Your task to perform on an android device: Go to Wikipedia Image 0: 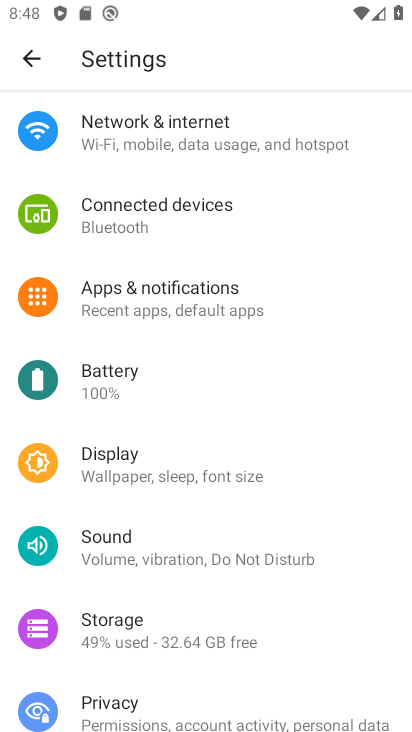
Step 0: press home button
Your task to perform on an android device: Go to Wikipedia Image 1: 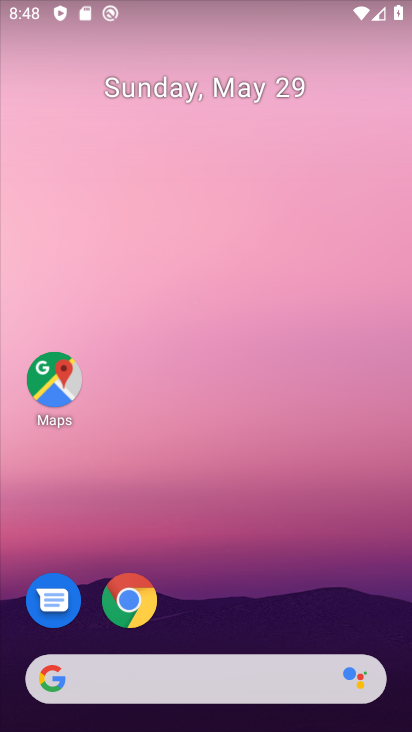
Step 1: click (127, 624)
Your task to perform on an android device: Go to Wikipedia Image 2: 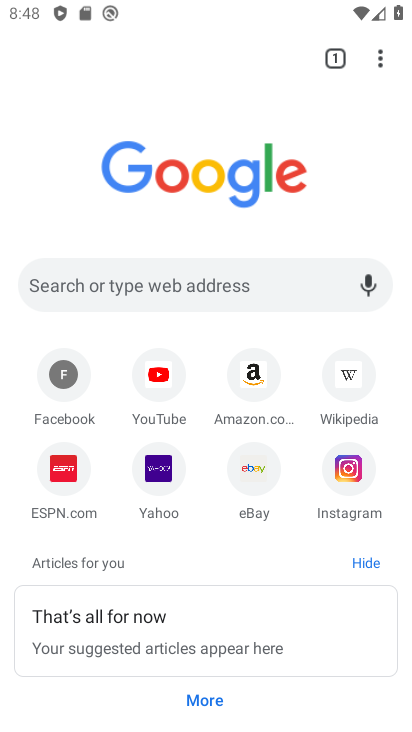
Step 2: click (356, 379)
Your task to perform on an android device: Go to Wikipedia Image 3: 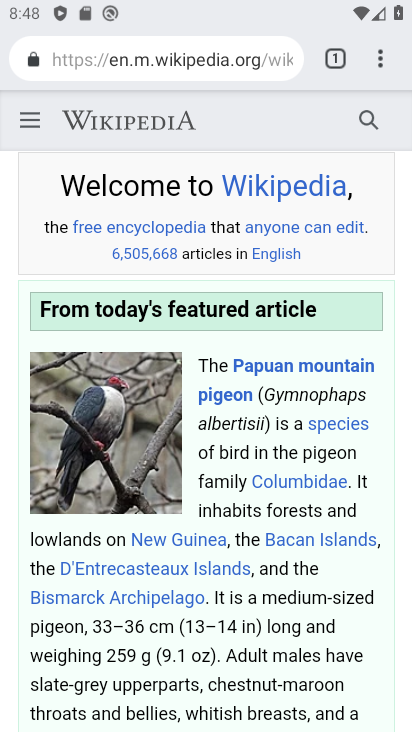
Step 3: task complete